Your task to perform on an android device: change the upload size in google photos Image 0: 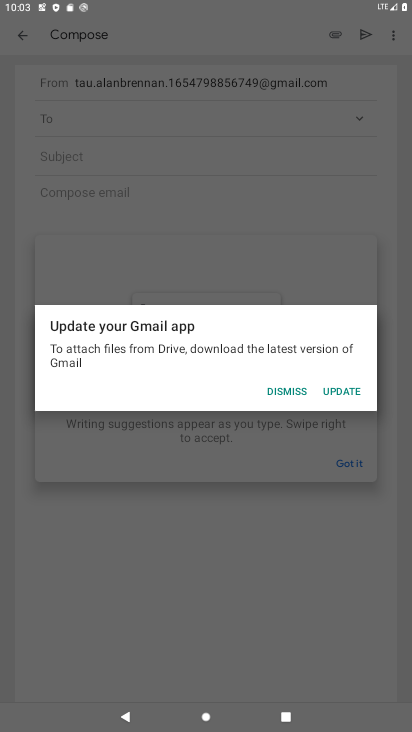
Step 0: press home button
Your task to perform on an android device: change the upload size in google photos Image 1: 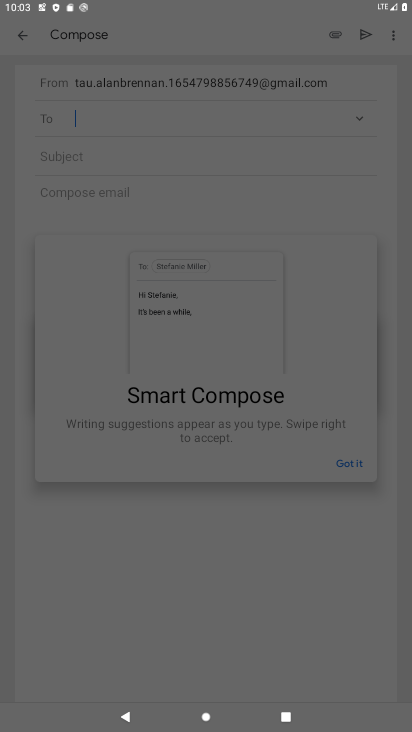
Step 1: drag from (309, 458) to (272, 4)
Your task to perform on an android device: change the upload size in google photos Image 2: 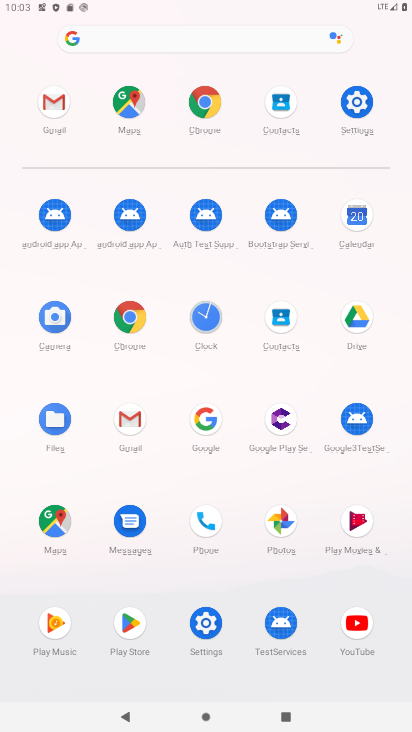
Step 2: click (339, 100)
Your task to perform on an android device: change the upload size in google photos Image 3: 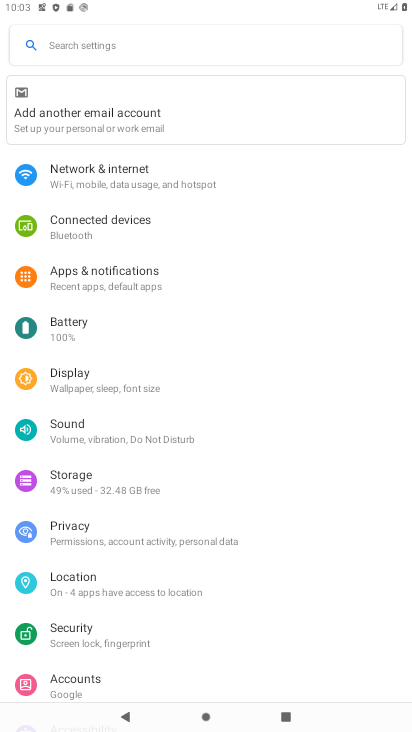
Step 3: press home button
Your task to perform on an android device: change the upload size in google photos Image 4: 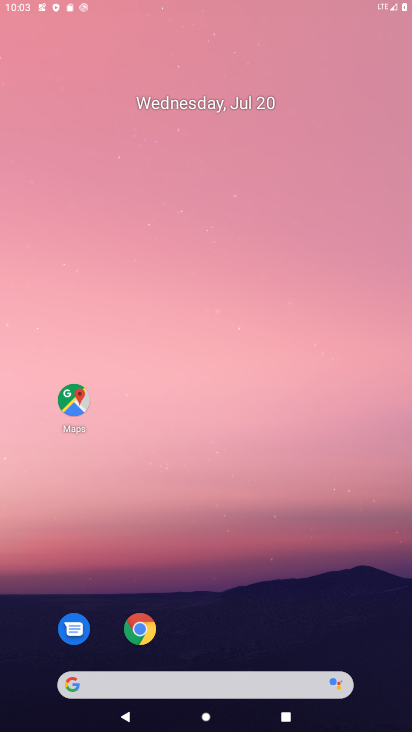
Step 4: drag from (276, 722) to (269, 240)
Your task to perform on an android device: change the upload size in google photos Image 5: 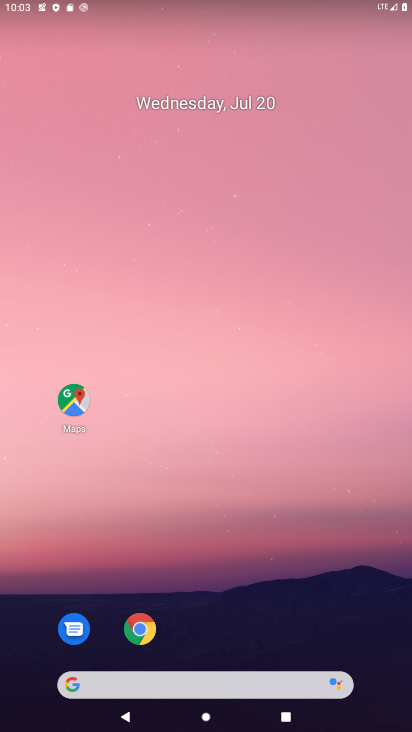
Step 5: drag from (220, 623) to (223, 25)
Your task to perform on an android device: change the upload size in google photos Image 6: 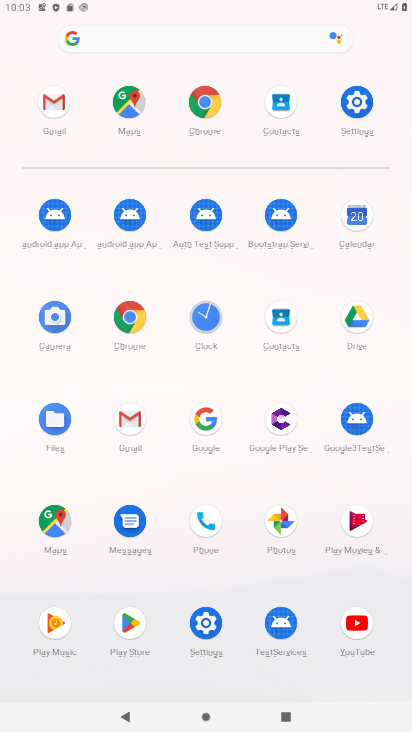
Step 6: click (282, 510)
Your task to perform on an android device: change the upload size in google photos Image 7: 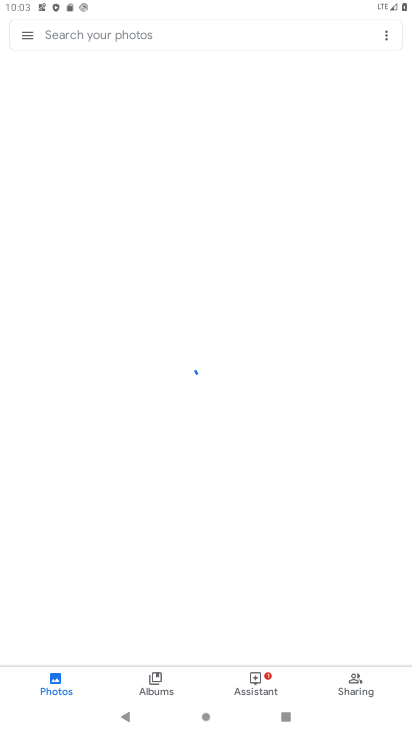
Step 7: click (29, 33)
Your task to perform on an android device: change the upload size in google photos Image 8: 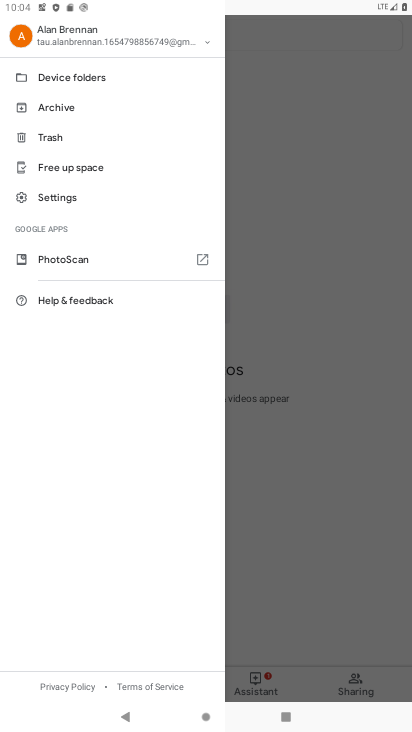
Step 8: click (66, 196)
Your task to perform on an android device: change the upload size in google photos Image 9: 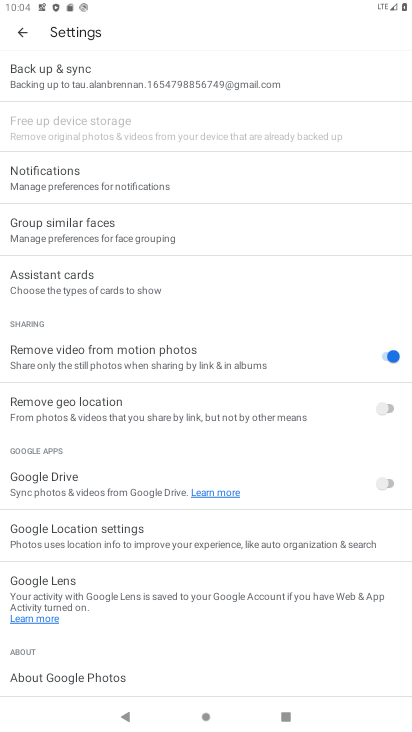
Step 9: click (120, 89)
Your task to perform on an android device: change the upload size in google photos Image 10: 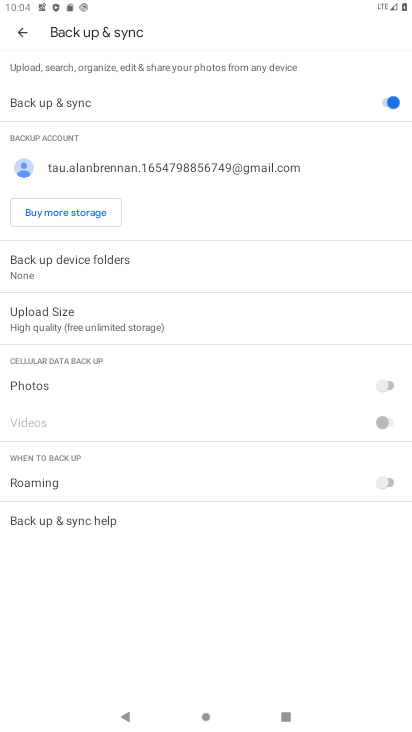
Step 10: click (53, 323)
Your task to perform on an android device: change the upload size in google photos Image 11: 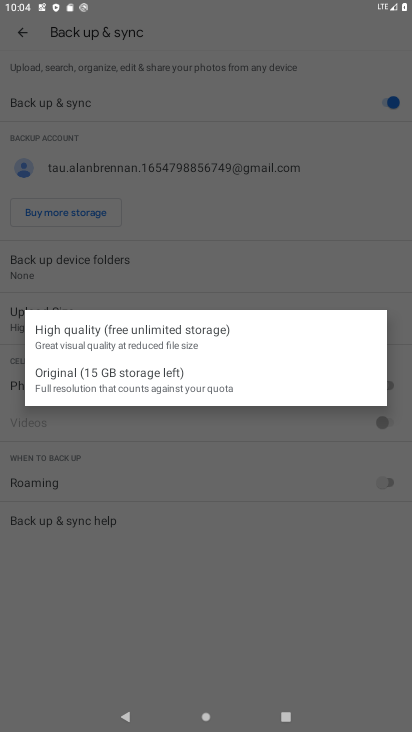
Step 11: click (106, 368)
Your task to perform on an android device: change the upload size in google photos Image 12: 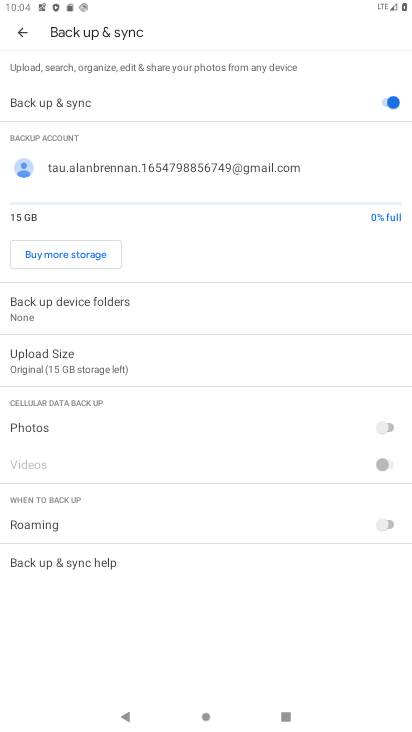
Step 12: task complete